Your task to perform on an android device: Open notification settings Image 0: 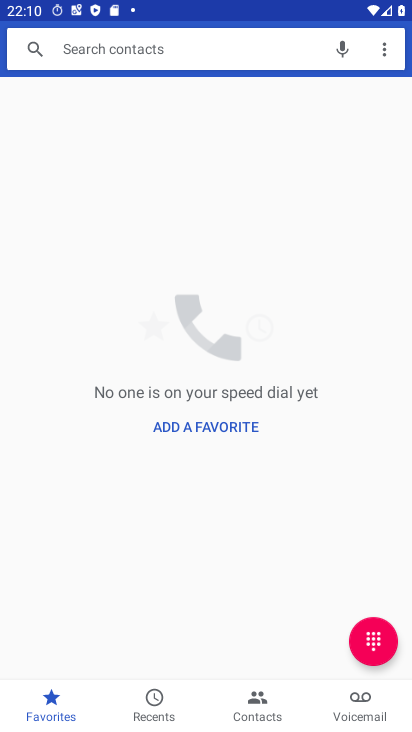
Step 0: press back button
Your task to perform on an android device: Open notification settings Image 1: 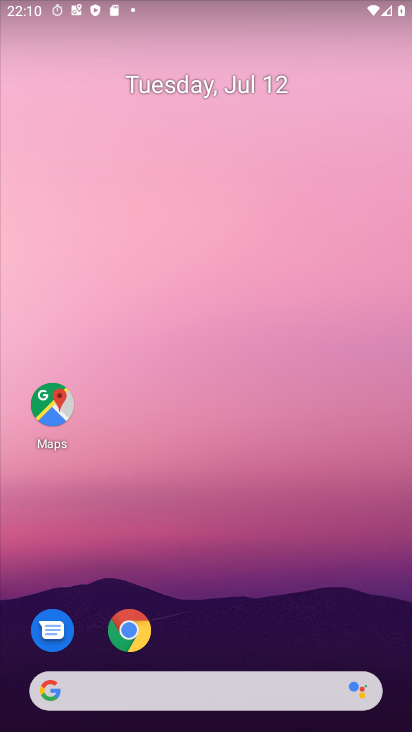
Step 1: drag from (202, 609) to (295, 5)
Your task to perform on an android device: Open notification settings Image 2: 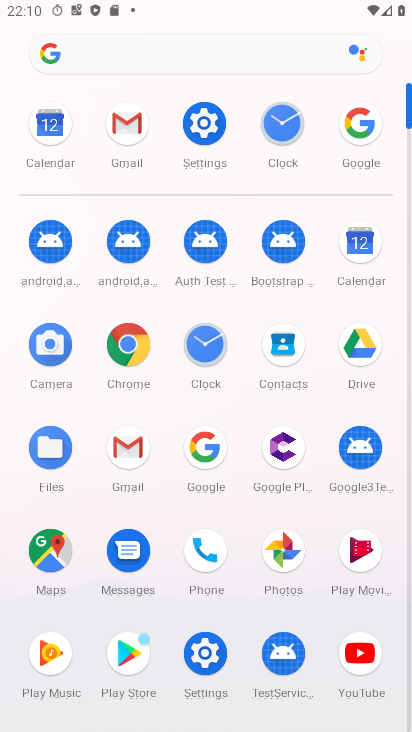
Step 2: click (208, 121)
Your task to perform on an android device: Open notification settings Image 3: 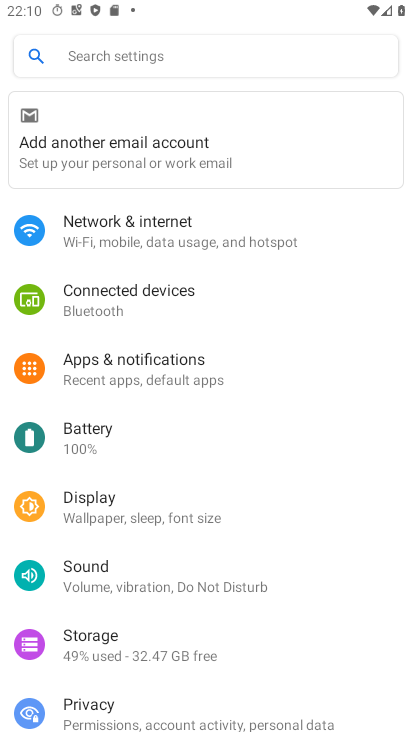
Step 3: click (101, 359)
Your task to perform on an android device: Open notification settings Image 4: 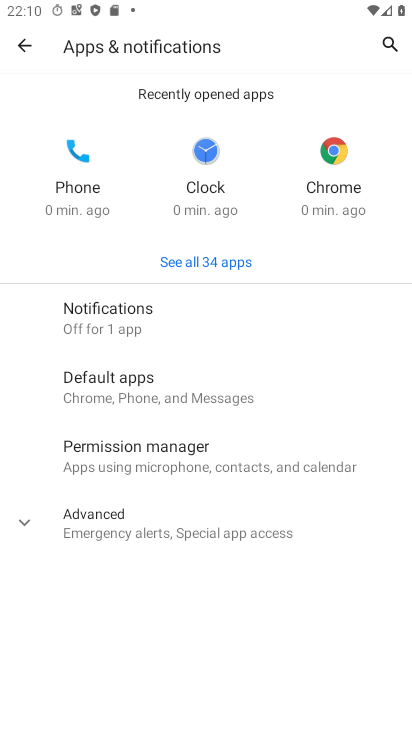
Step 4: task complete